Your task to perform on an android device: toggle notification dots Image 0: 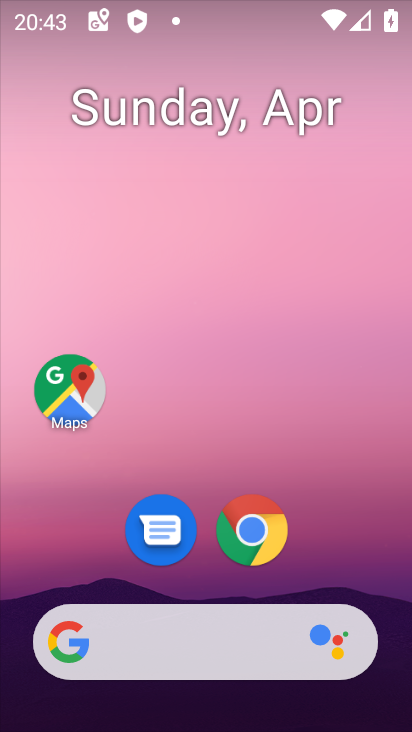
Step 0: drag from (200, 505) to (239, 34)
Your task to perform on an android device: toggle notification dots Image 1: 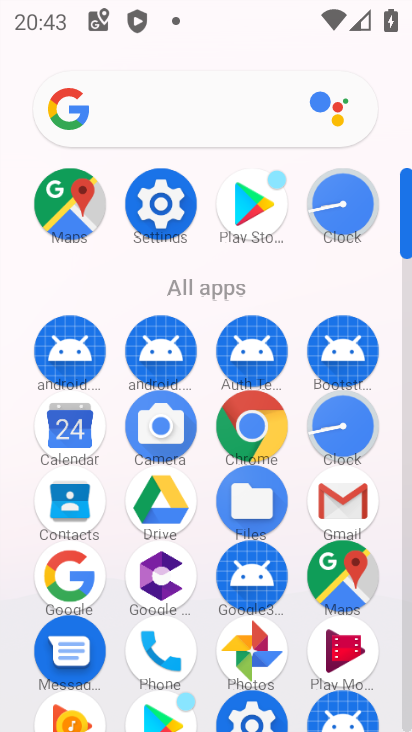
Step 1: click (167, 200)
Your task to perform on an android device: toggle notification dots Image 2: 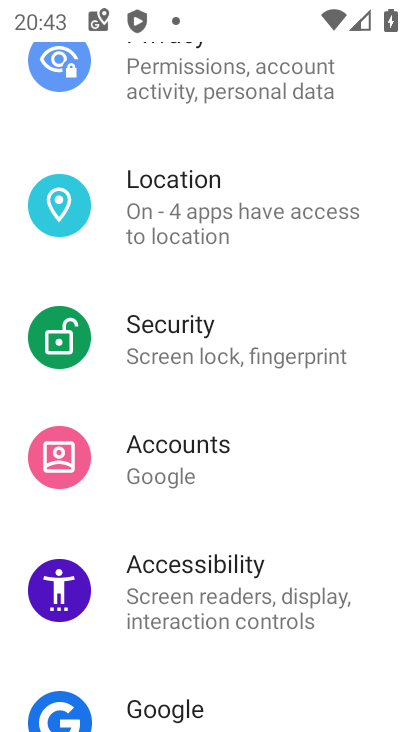
Step 2: drag from (211, 178) to (190, 571)
Your task to perform on an android device: toggle notification dots Image 3: 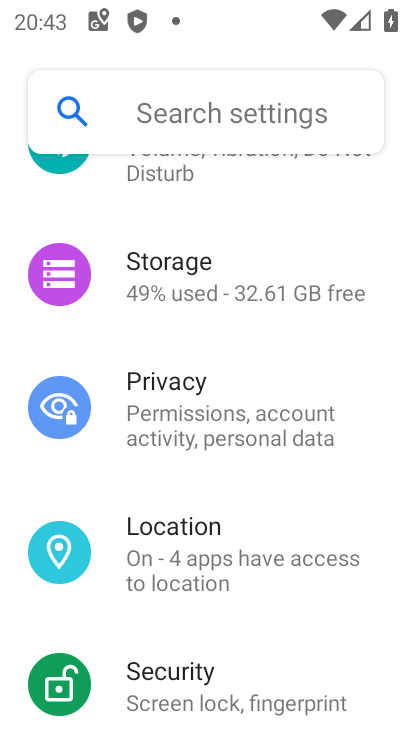
Step 3: drag from (223, 197) to (218, 586)
Your task to perform on an android device: toggle notification dots Image 4: 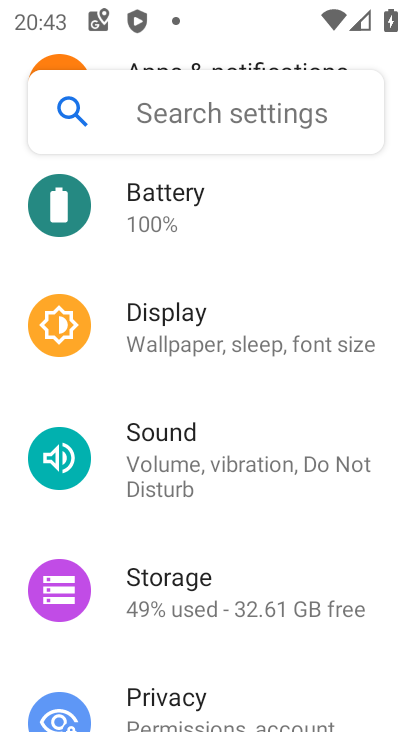
Step 4: drag from (234, 258) to (230, 585)
Your task to perform on an android device: toggle notification dots Image 5: 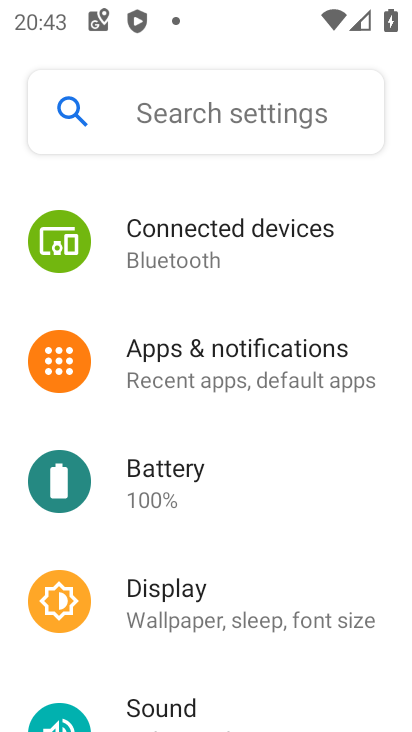
Step 5: click (199, 355)
Your task to perform on an android device: toggle notification dots Image 6: 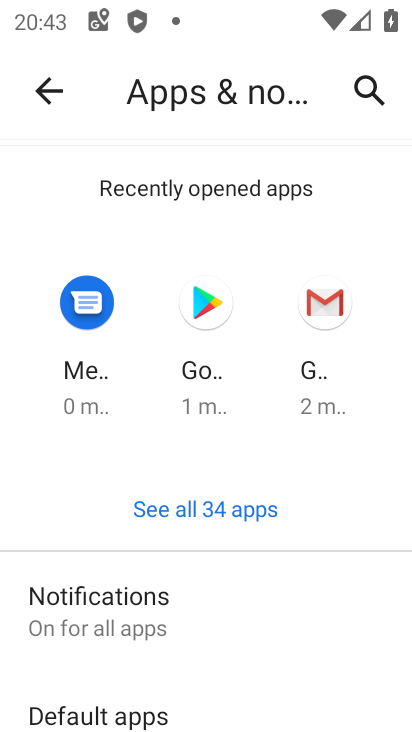
Step 6: click (180, 615)
Your task to perform on an android device: toggle notification dots Image 7: 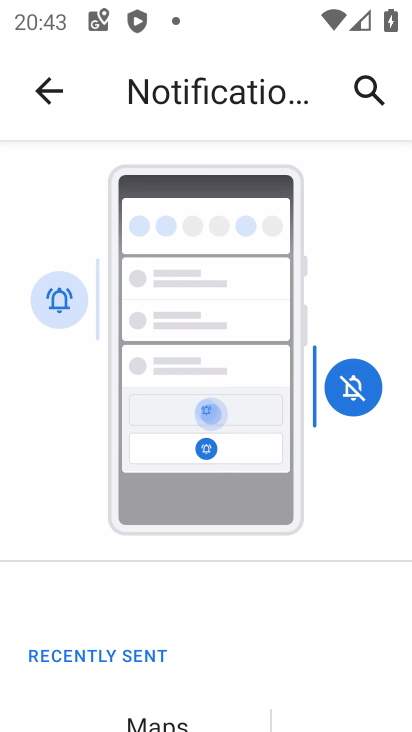
Step 7: drag from (180, 603) to (264, 215)
Your task to perform on an android device: toggle notification dots Image 8: 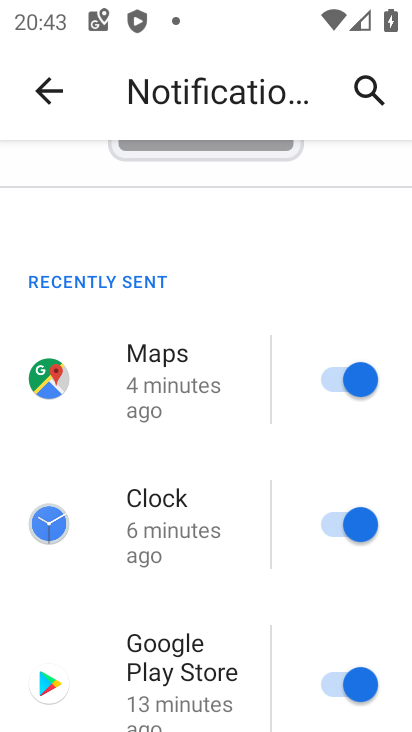
Step 8: drag from (201, 631) to (264, 136)
Your task to perform on an android device: toggle notification dots Image 9: 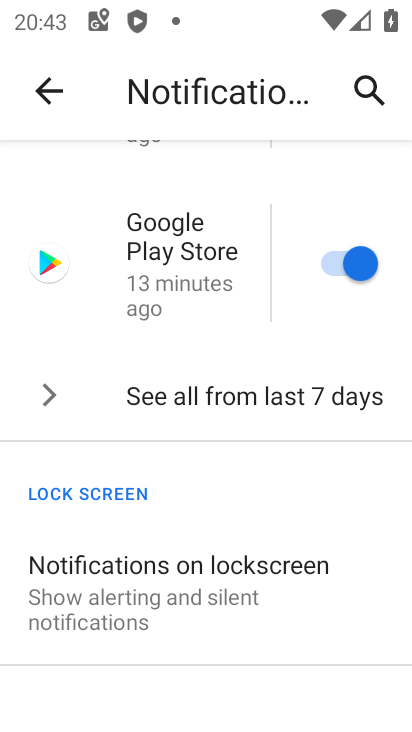
Step 9: drag from (185, 638) to (265, 241)
Your task to perform on an android device: toggle notification dots Image 10: 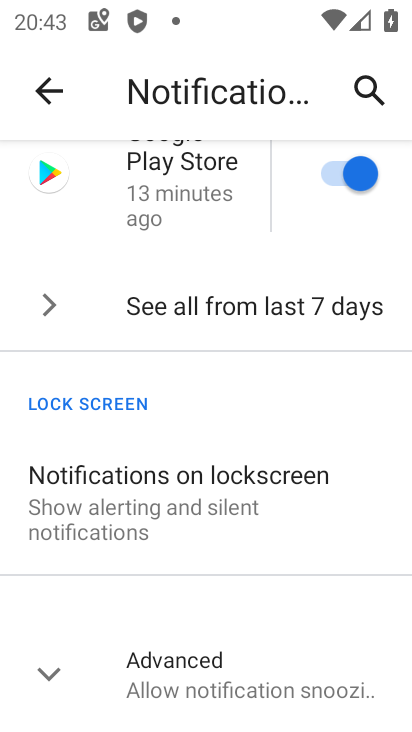
Step 10: click (169, 687)
Your task to perform on an android device: toggle notification dots Image 11: 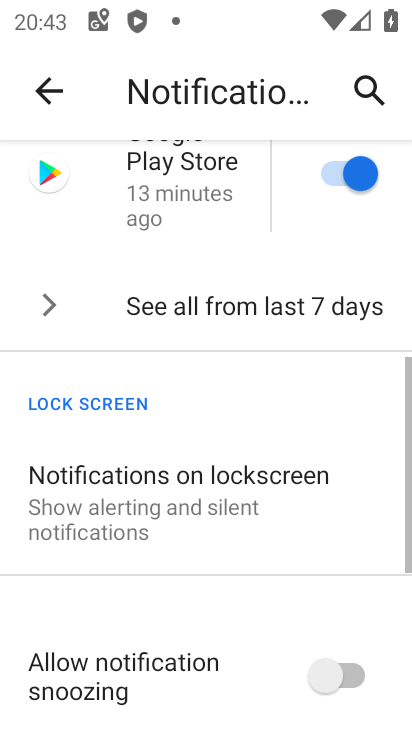
Step 11: drag from (170, 682) to (252, 150)
Your task to perform on an android device: toggle notification dots Image 12: 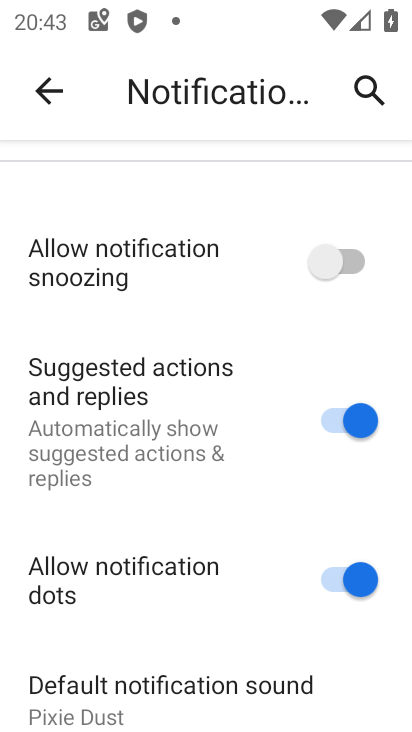
Step 12: click (320, 606)
Your task to perform on an android device: toggle notification dots Image 13: 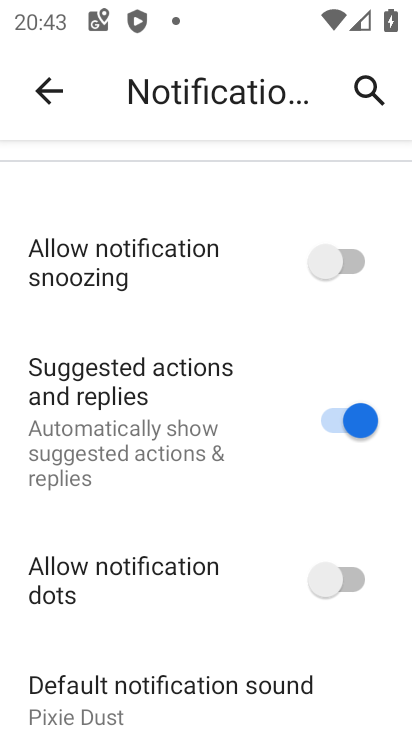
Step 13: task complete